Your task to perform on an android device: turn on data saver in the chrome app Image 0: 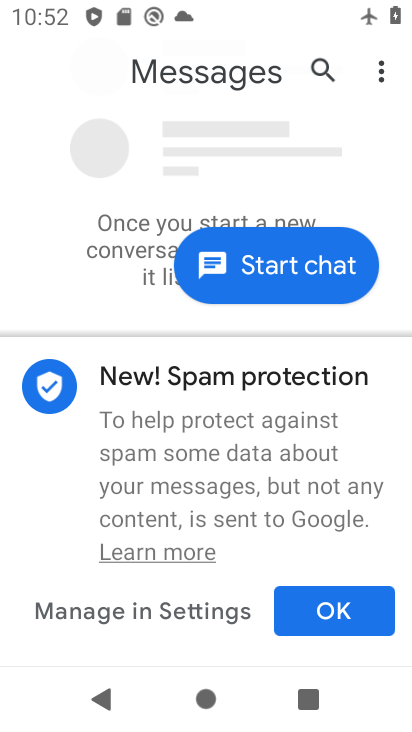
Step 0: click (312, 487)
Your task to perform on an android device: turn on data saver in the chrome app Image 1: 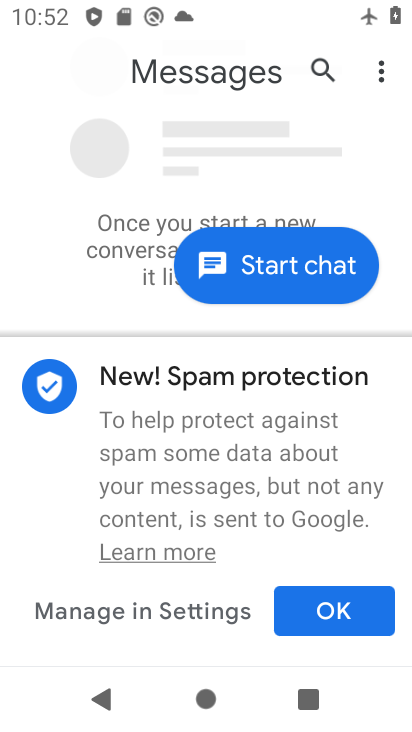
Step 1: press home button
Your task to perform on an android device: turn on data saver in the chrome app Image 2: 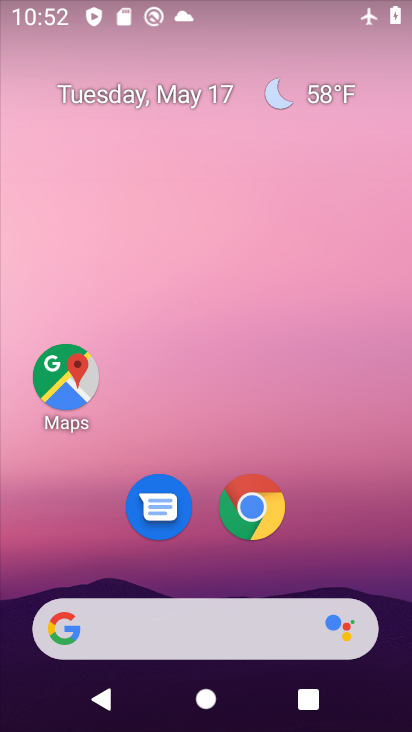
Step 2: click (255, 507)
Your task to perform on an android device: turn on data saver in the chrome app Image 3: 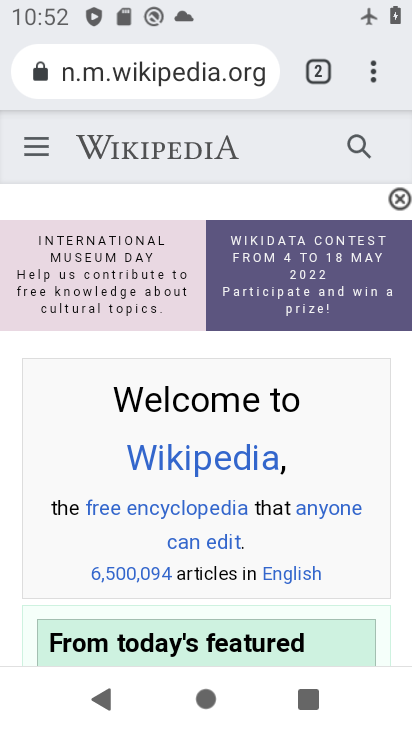
Step 3: click (371, 67)
Your task to perform on an android device: turn on data saver in the chrome app Image 4: 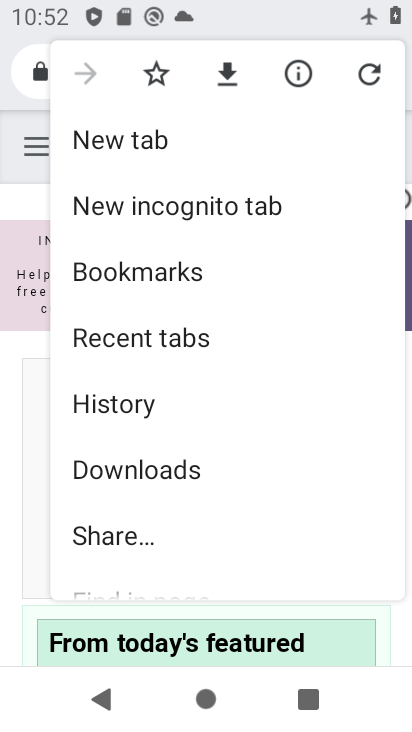
Step 4: drag from (250, 492) to (188, 286)
Your task to perform on an android device: turn on data saver in the chrome app Image 5: 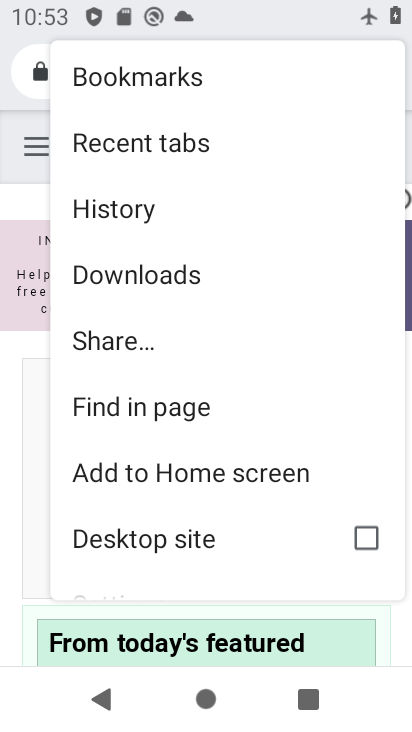
Step 5: drag from (222, 482) to (176, 220)
Your task to perform on an android device: turn on data saver in the chrome app Image 6: 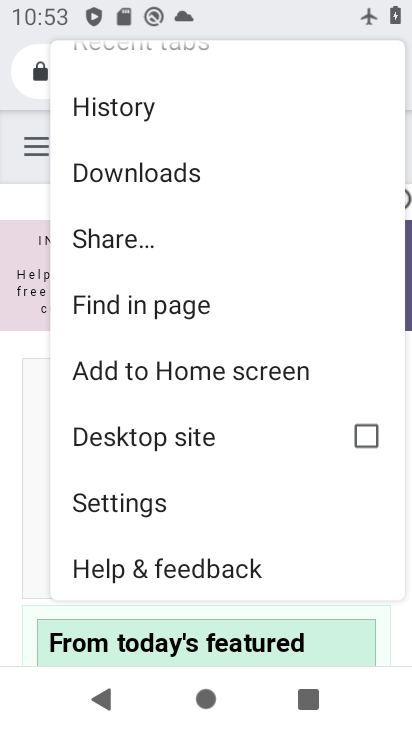
Step 6: click (111, 504)
Your task to perform on an android device: turn on data saver in the chrome app Image 7: 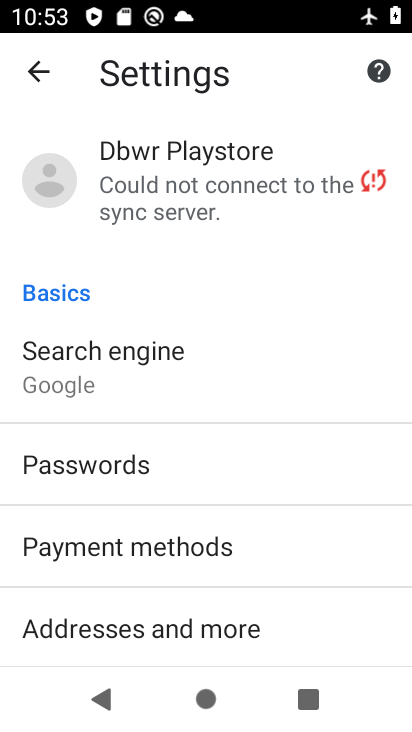
Step 7: drag from (215, 502) to (142, 263)
Your task to perform on an android device: turn on data saver in the chrome app Image 8: 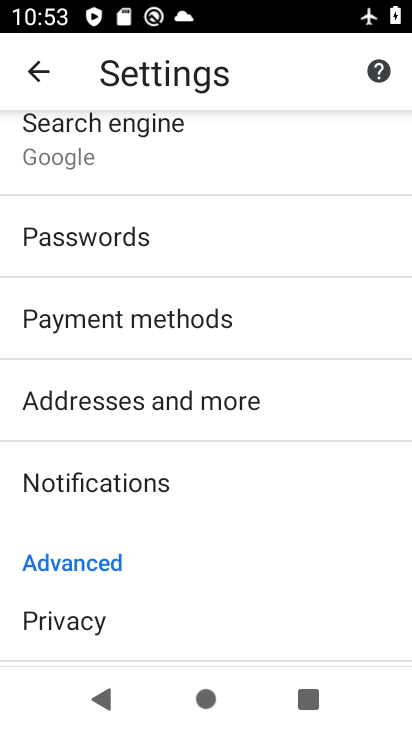
Step 8: drag from (212, 539) to (187, 272)
Your task to perform on an android device: turn on data saver in the chrome app Image 9: 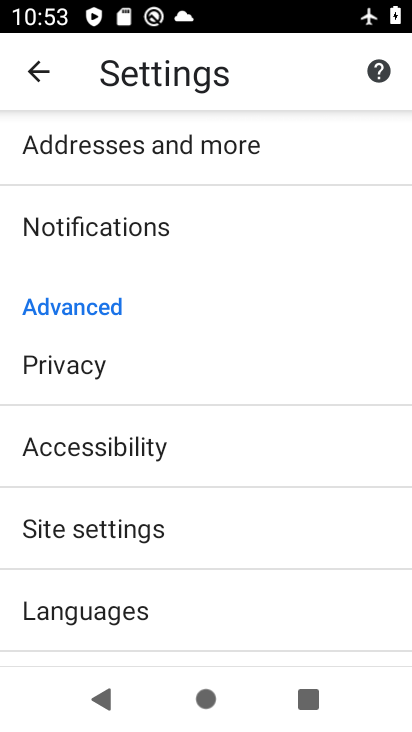
Step 9: drag from (207, 481) to (203, 235)
Your task to perform on an android device: turn on data saver in the chrome app Image 10: 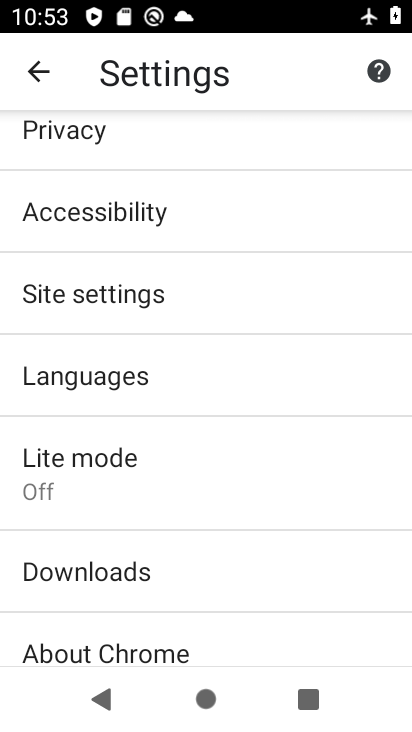
Step 10: click (100, 468)
Your task to perform on an android device: turn on data saver in the chrome app Image 11: 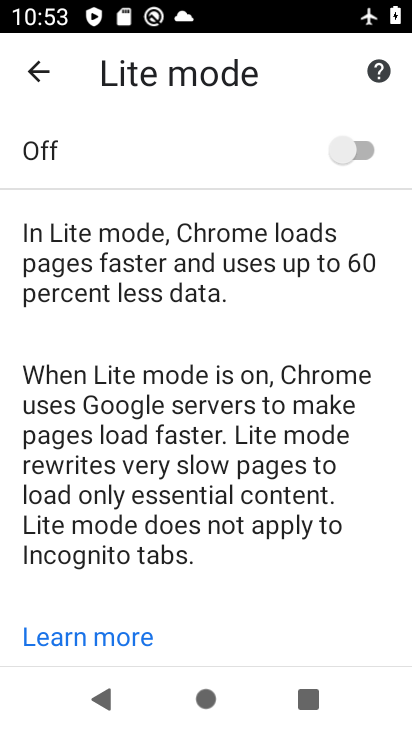
Step 11: click (334, 154)
Your task to perform on an android device: turn on data saver in the chrome app Image 12: 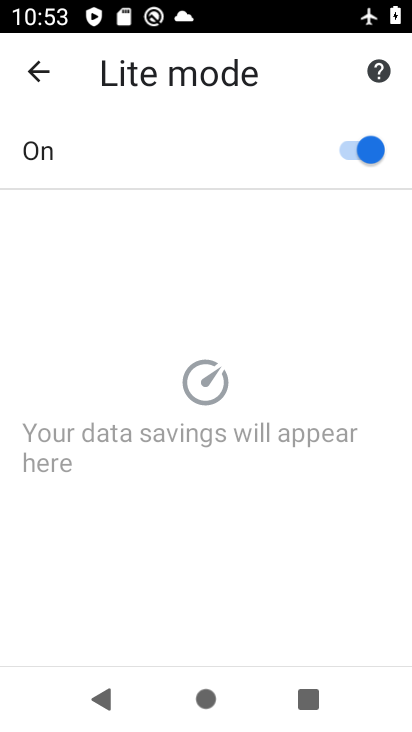
Step 12: task complete